Your task to perform on an android device: search for console tables on article.com Image 0: 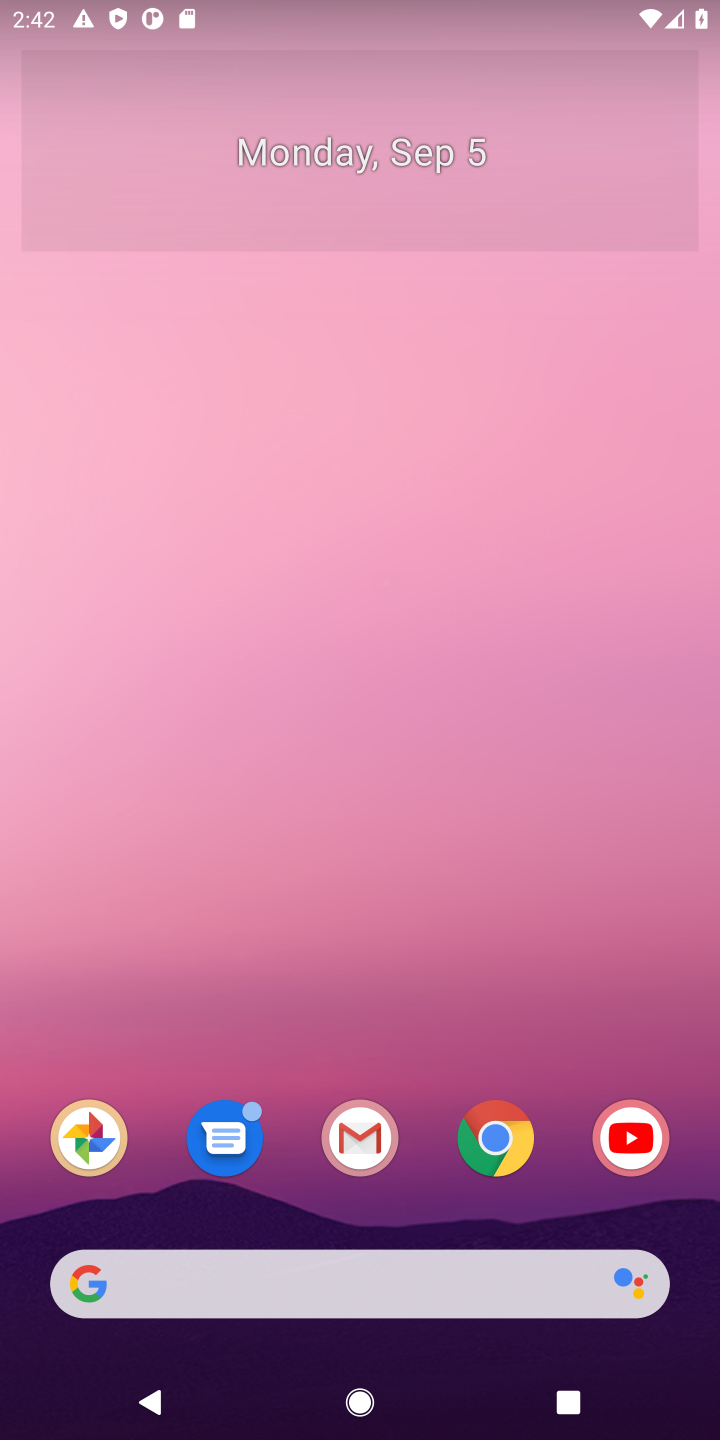
Step 0: click (499, 1142)
Your task to perform on an android device: search for console tables on article.com Image 1: 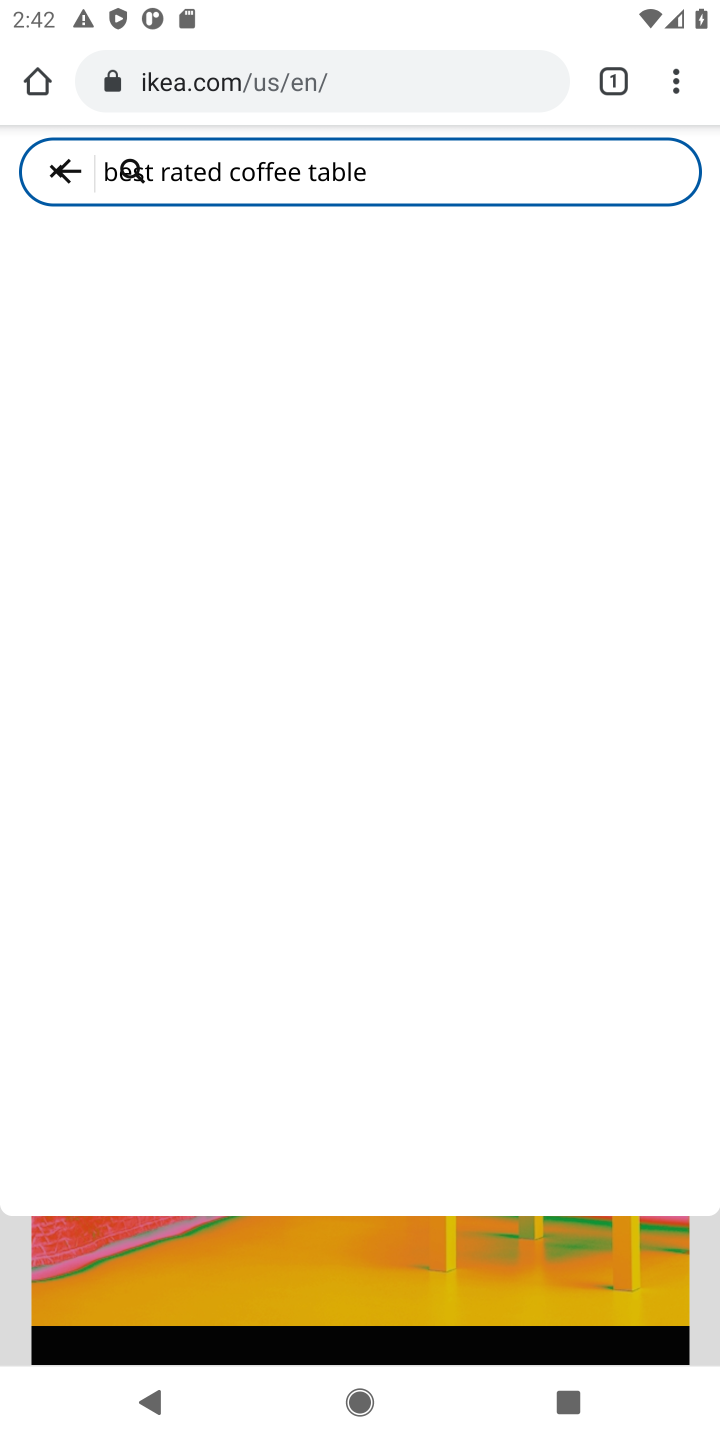
Step 1: click (426, 89)
Your task to perform on an android device: search for console tables on article.com Image 2: 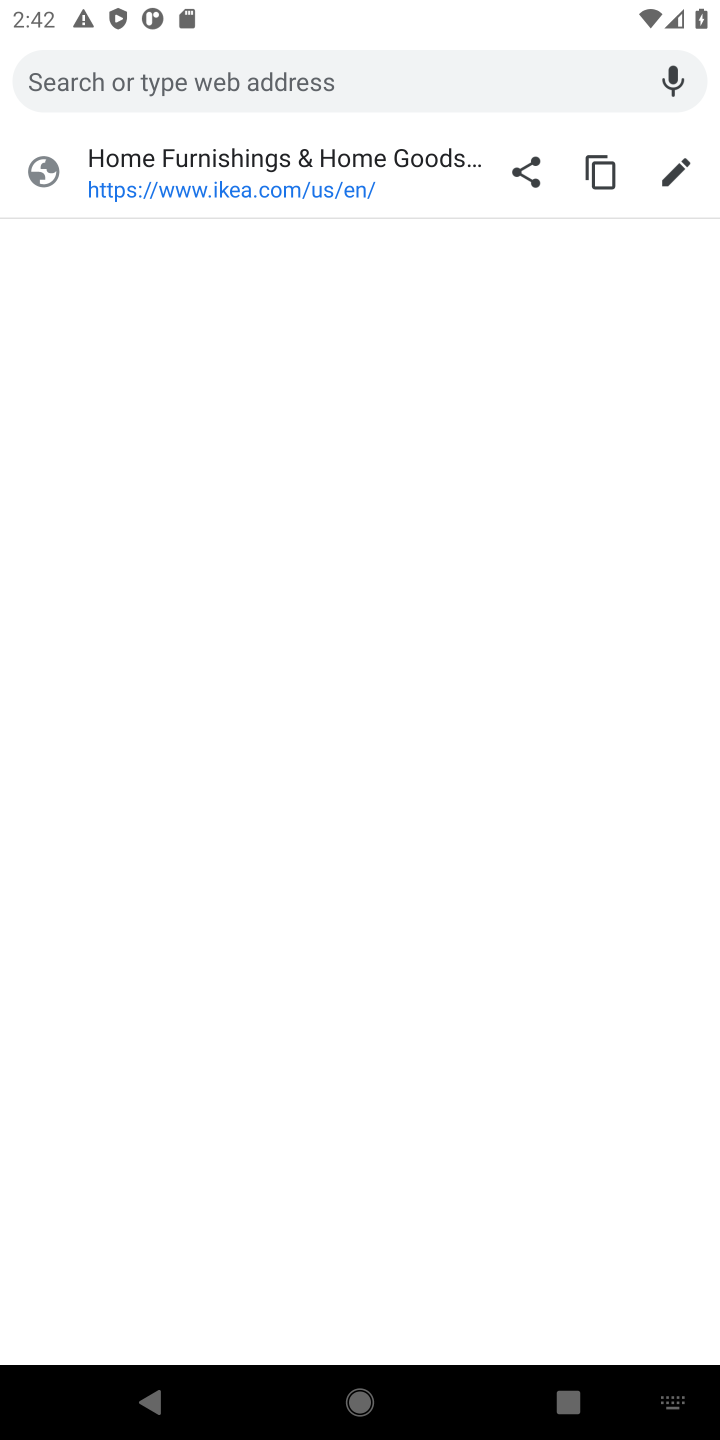
Step 2: type "article.com"
Your task to perform on an android device: search for console tables on article.com Image 3: 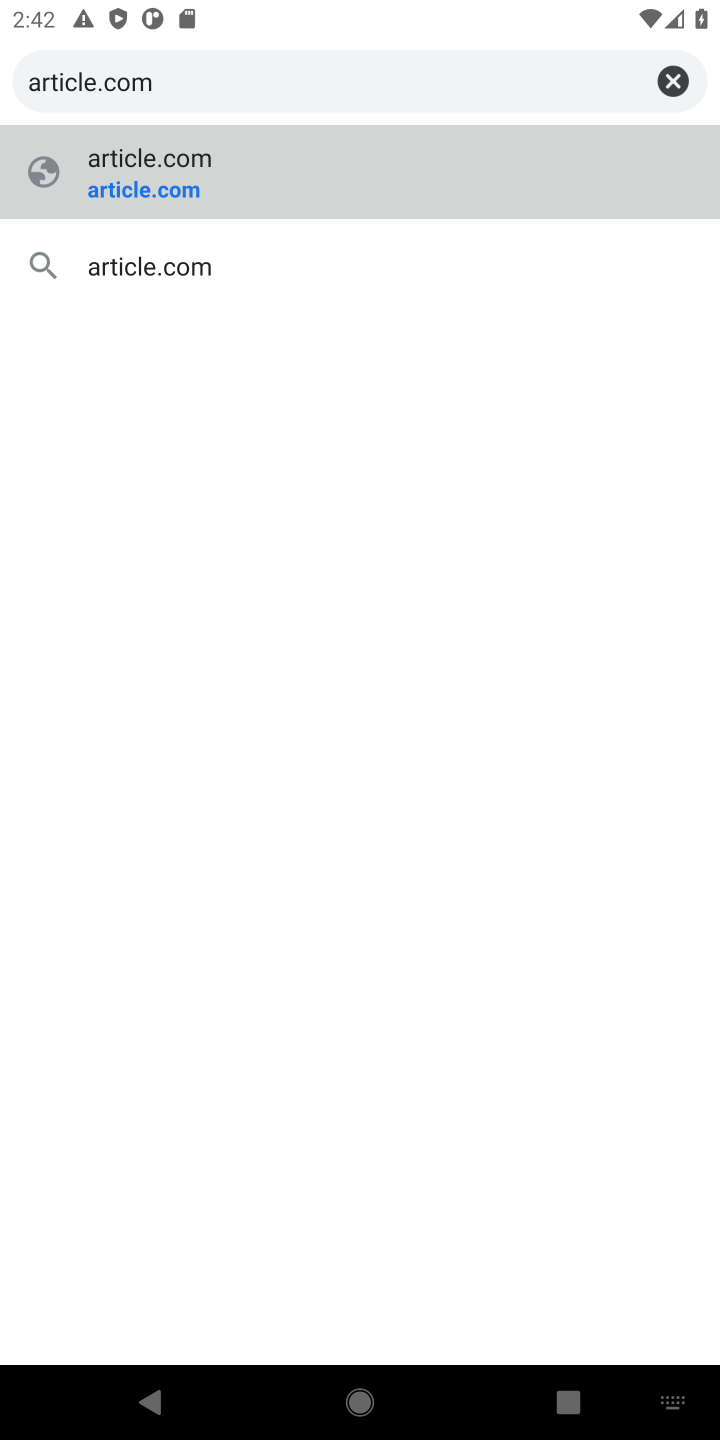
Step 3: click (222, 273)
Your task to perform on an android device: search for console tables on article.com Image 4: 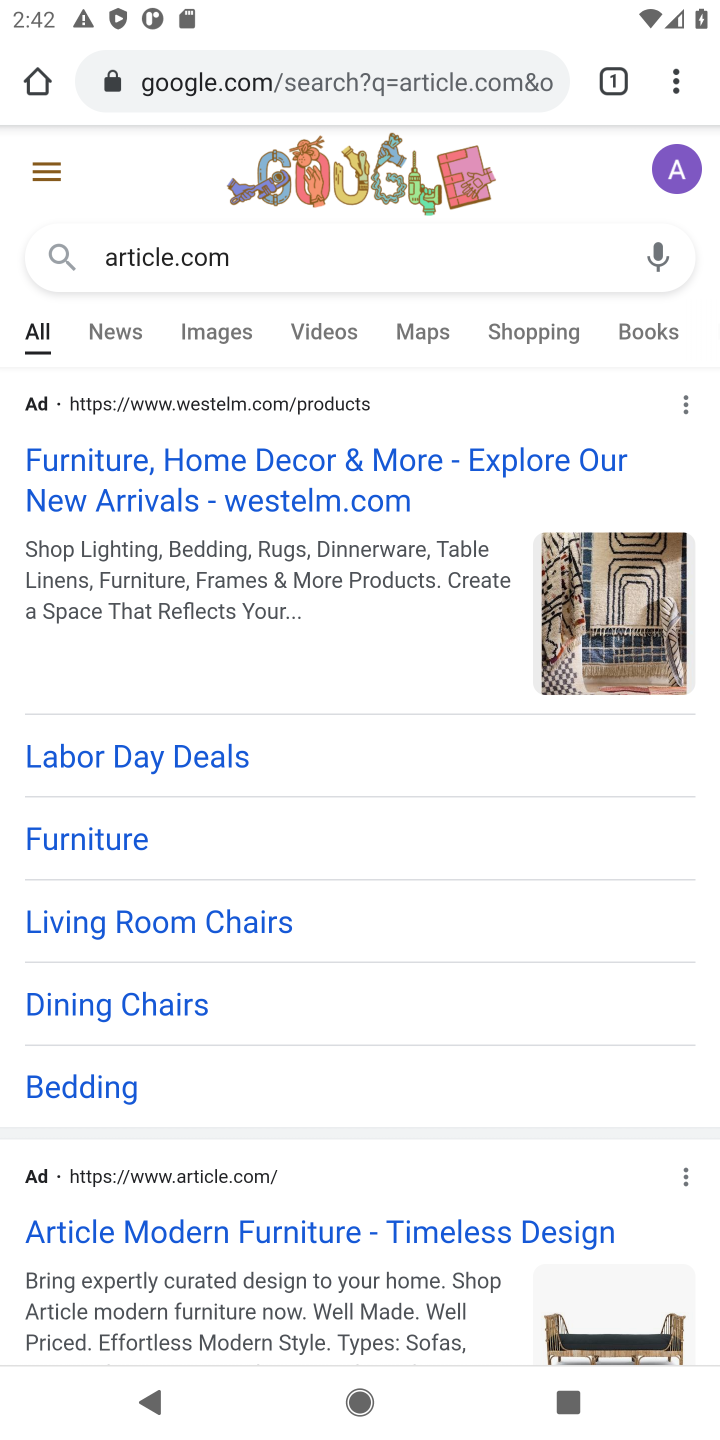
Step 4: click (451, 1252)
Your task to perform on an android device: search for console tables on article.com Image 5: 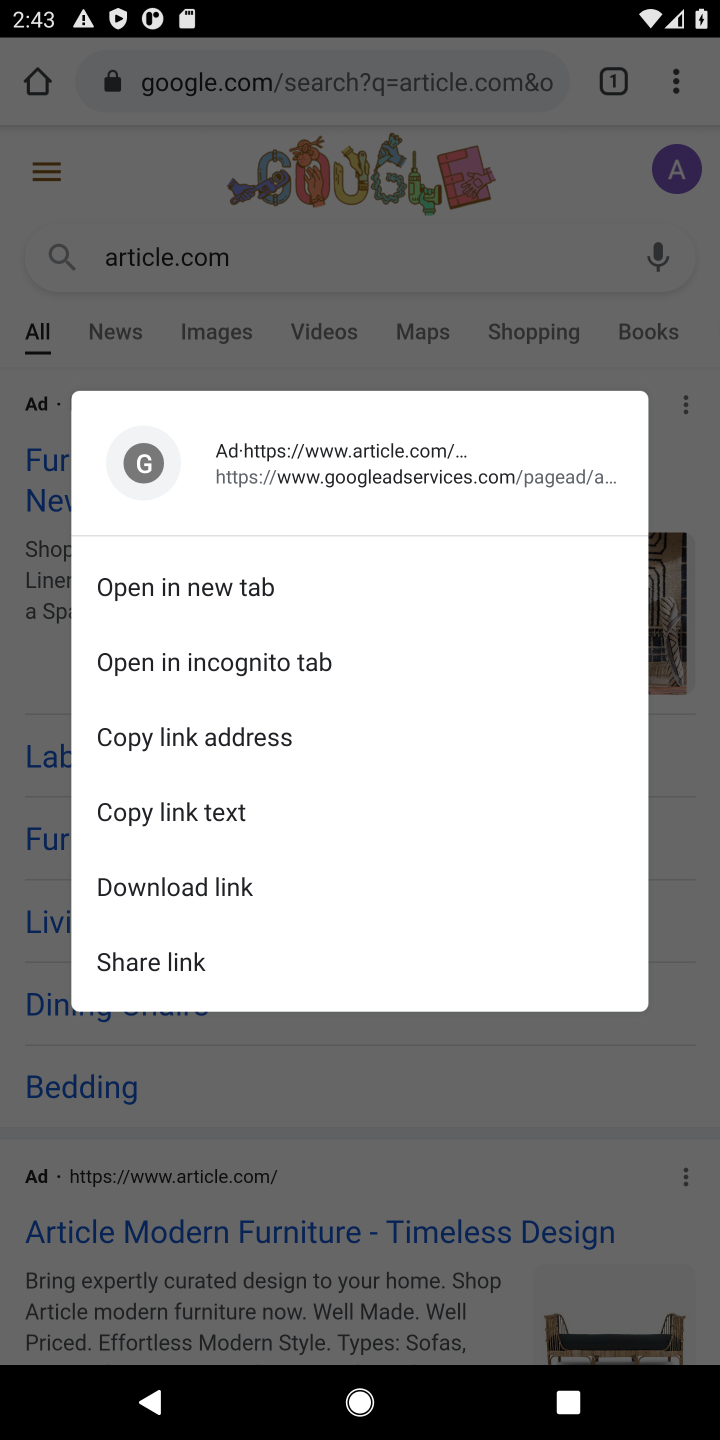
Step 5: click (700, 854)
Your task to perform on an android device: search for console tables on article.com Image 6: 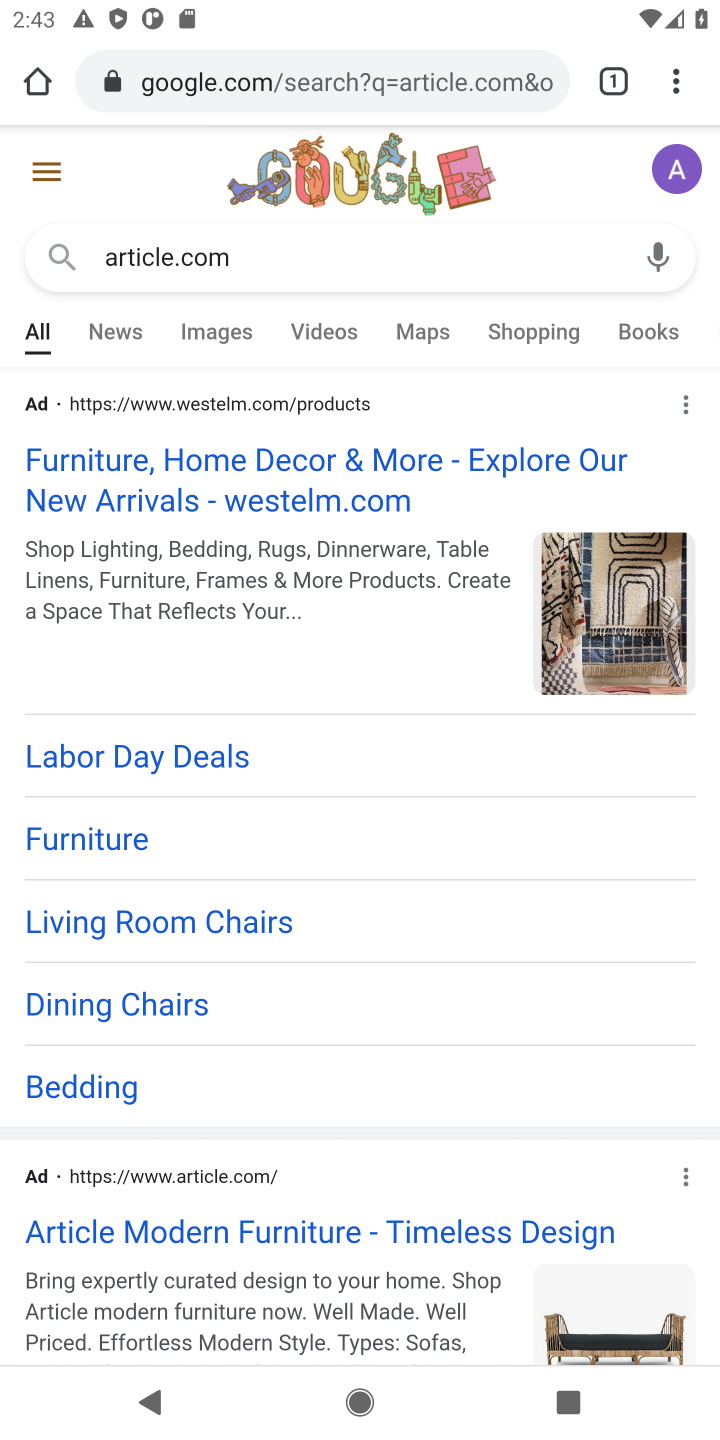
Step 6: drag from (374, 1187) to (473, 391)
Your task to perform on an android device: search for console tables on article.com Image 7: 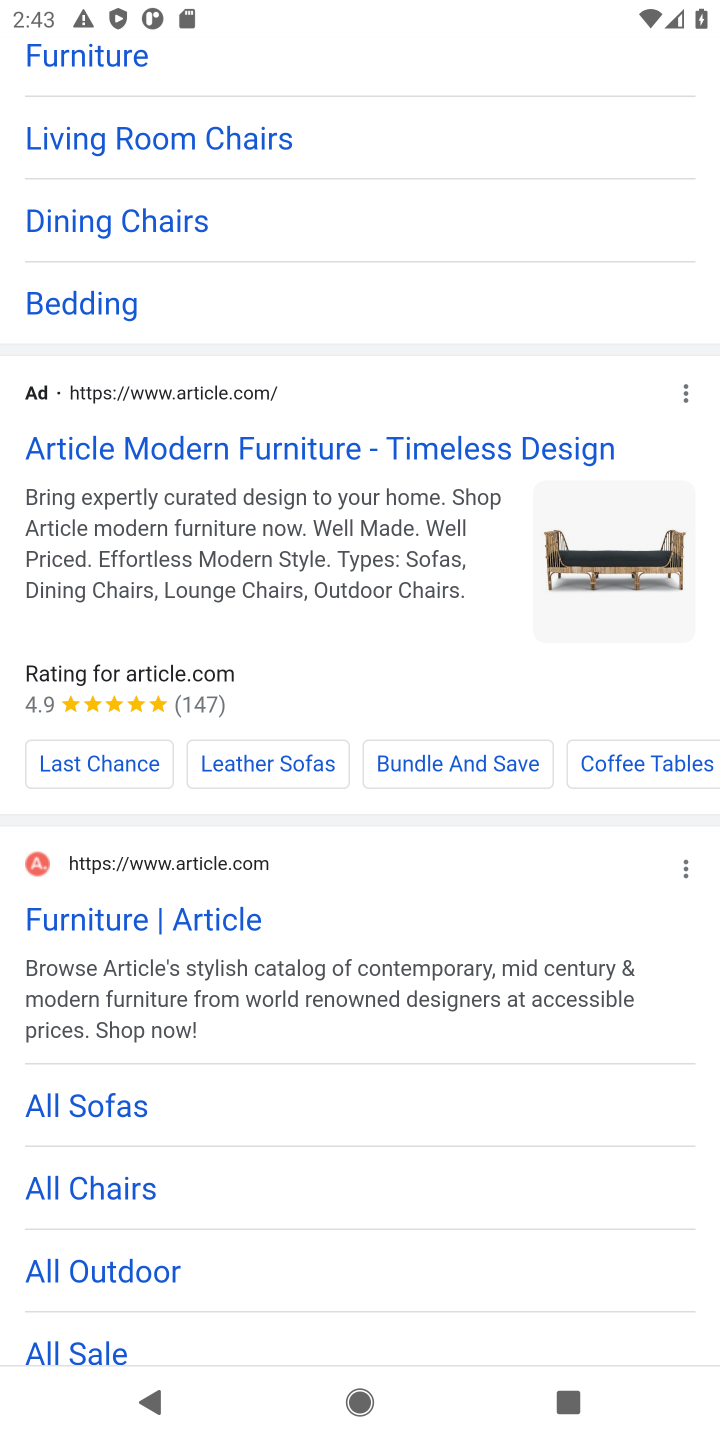
Step 7: drag from (334, 1319) to (355, 1107)
Your task to perform on an android device: search for console tables on article.com Image 8: 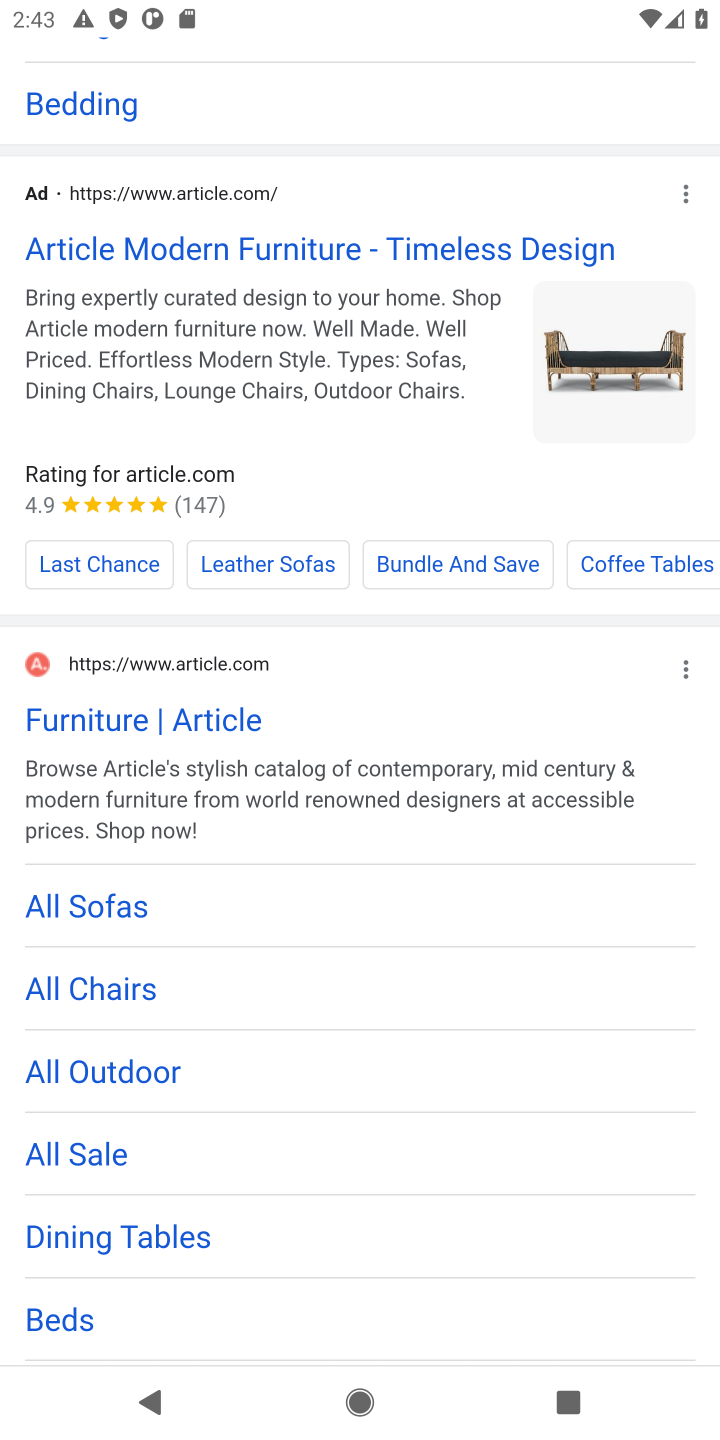
Step 8: click (280, 738)
Your task to perform on an android device: search for console tables on article.com Image 9: 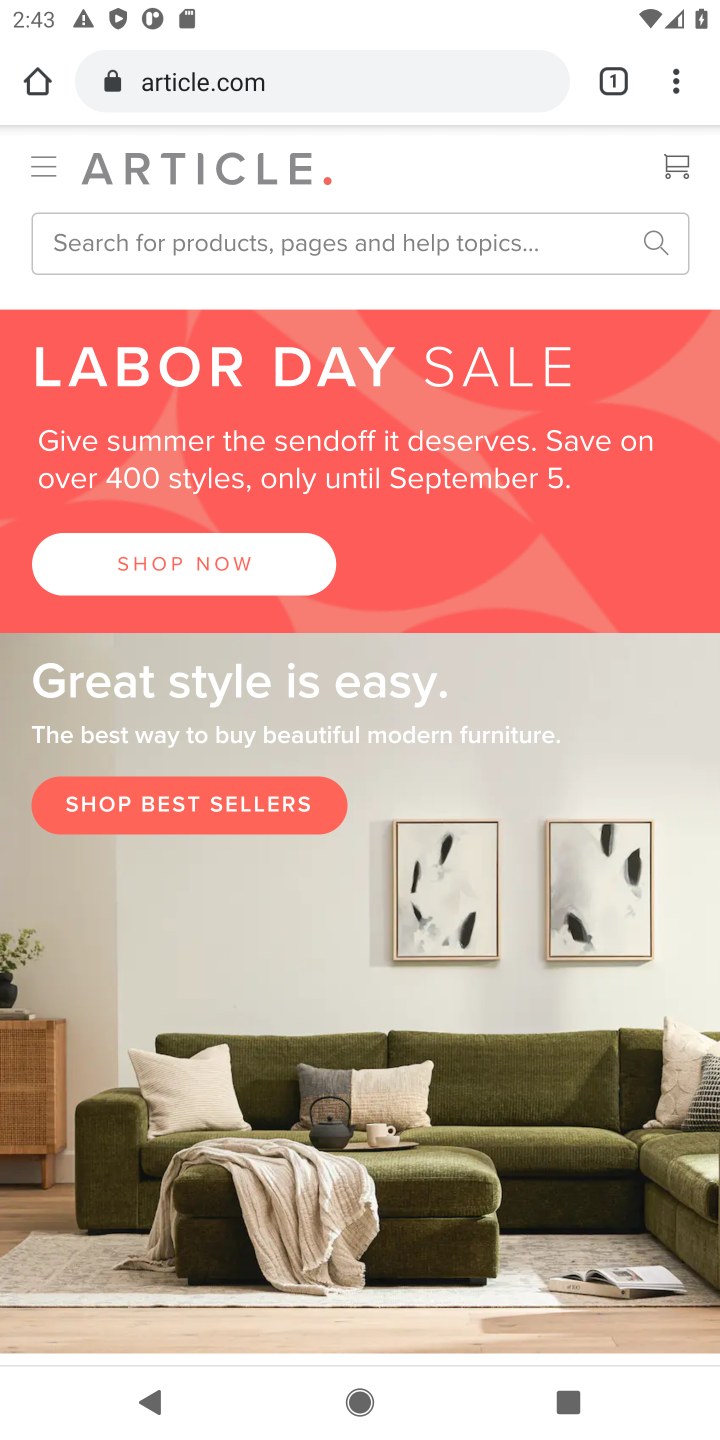
Step 9: click (374, 253)
Your task to perform on an android device: search for console tables on article.com Image 10: 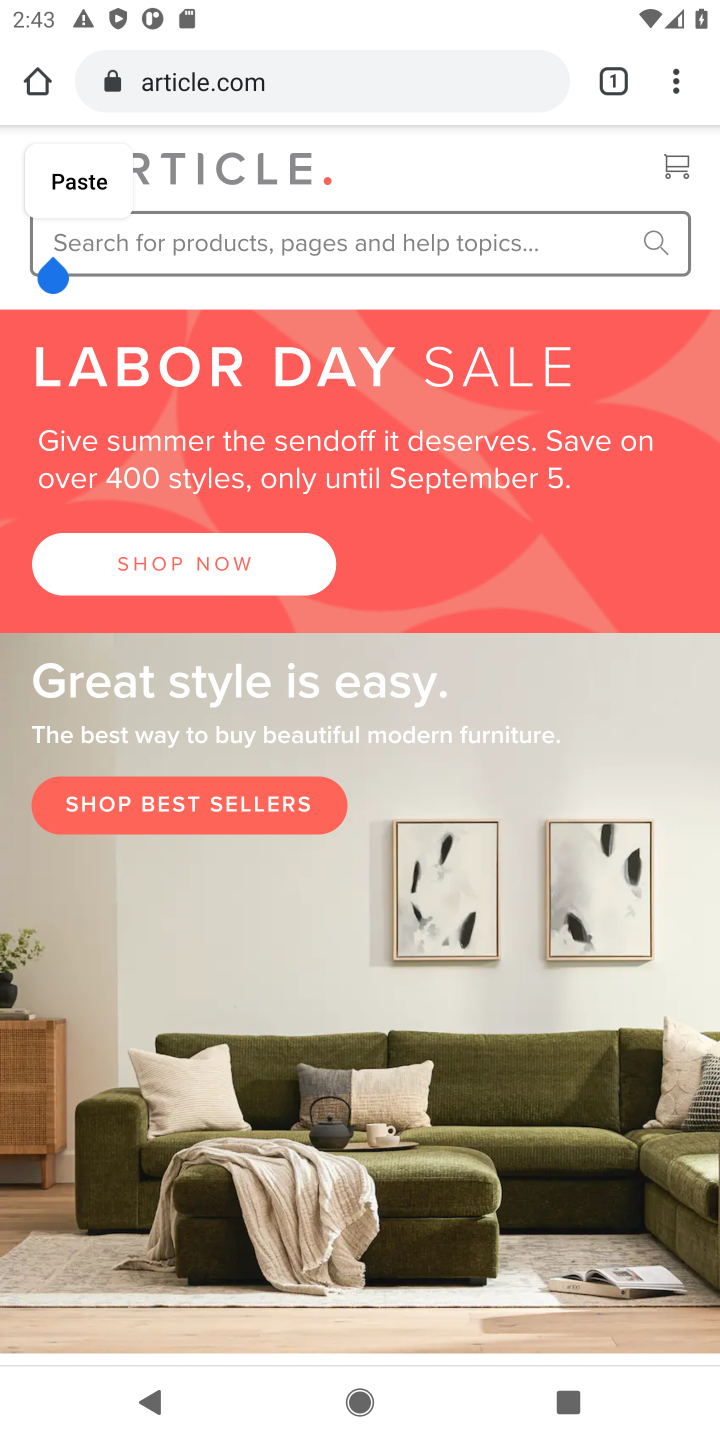
Step 10: type "console table"
Your task to perform on an android device: search for console tables on article.com Image 11: 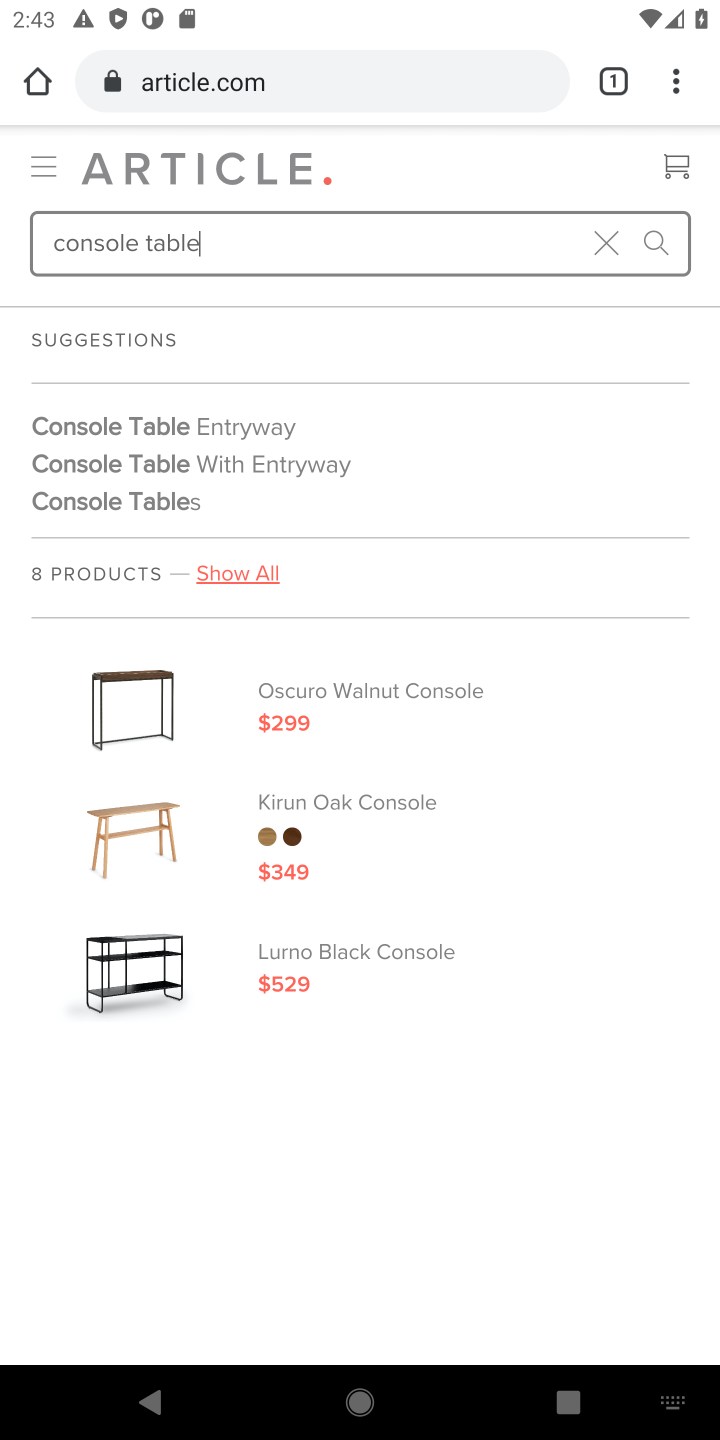
Step 11: click (658, 245)
Your task to perform on an android device: search for console tables on article.com Image 12: 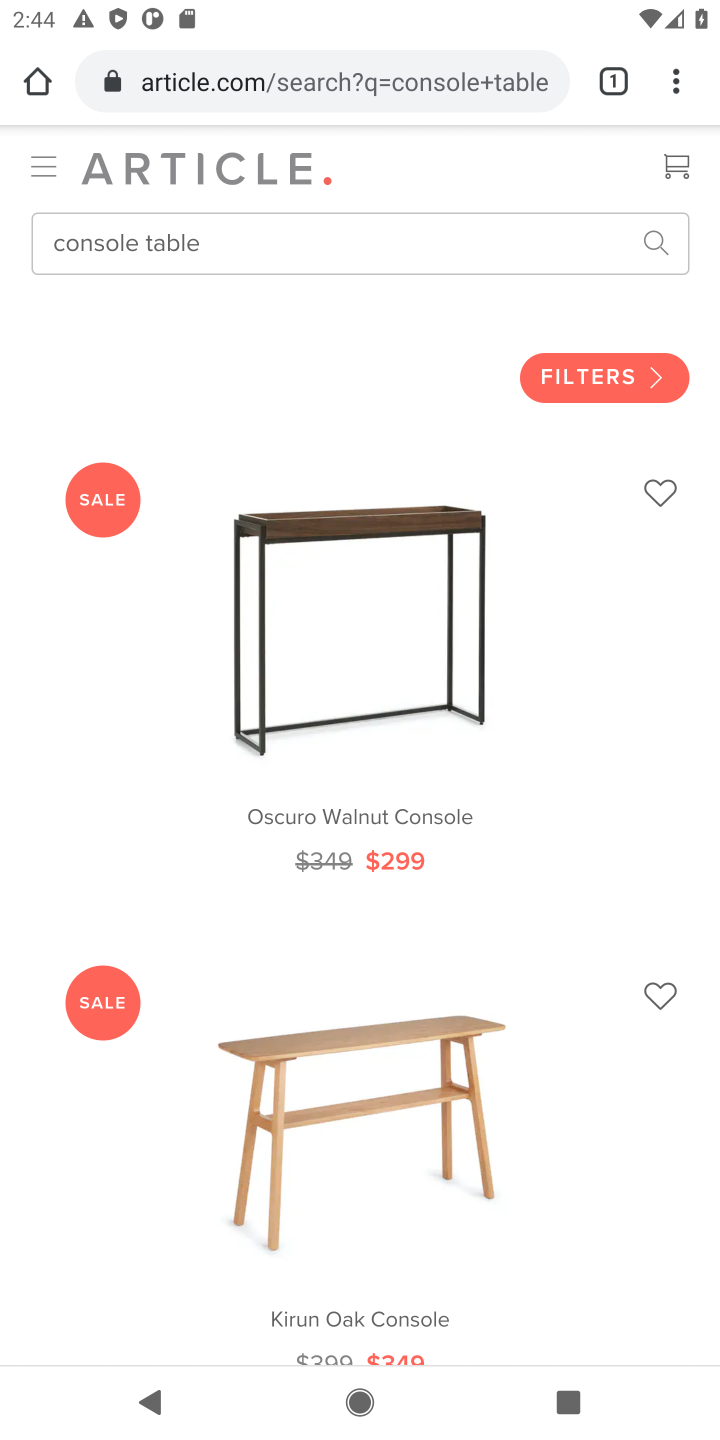
Step 12: drag from (437, 942) to (535, 459)
Your task to perform on an android device: search for console tables on article.com Image 13: 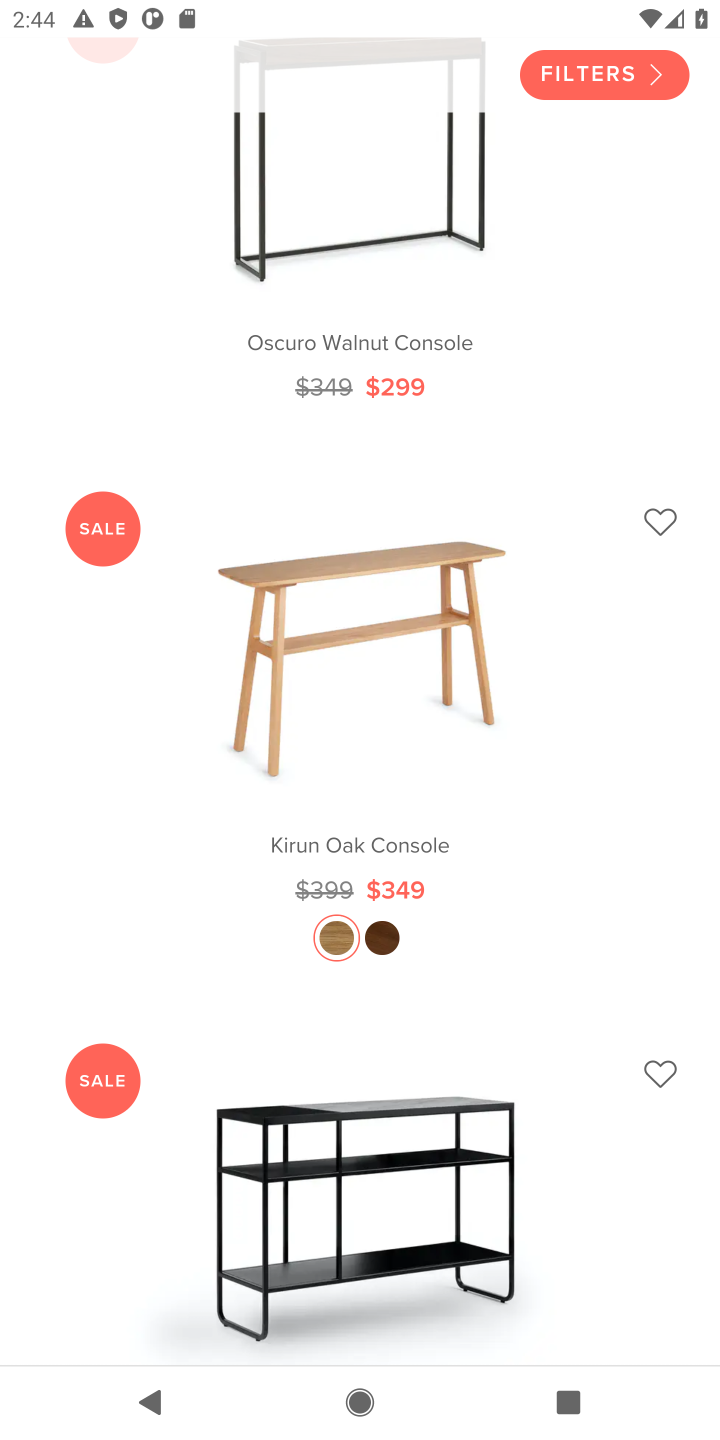
Step 13: drag from (385, 1045) to (657, 380)
Your task to perform on an android device: search for console tables on article.com Image 14: 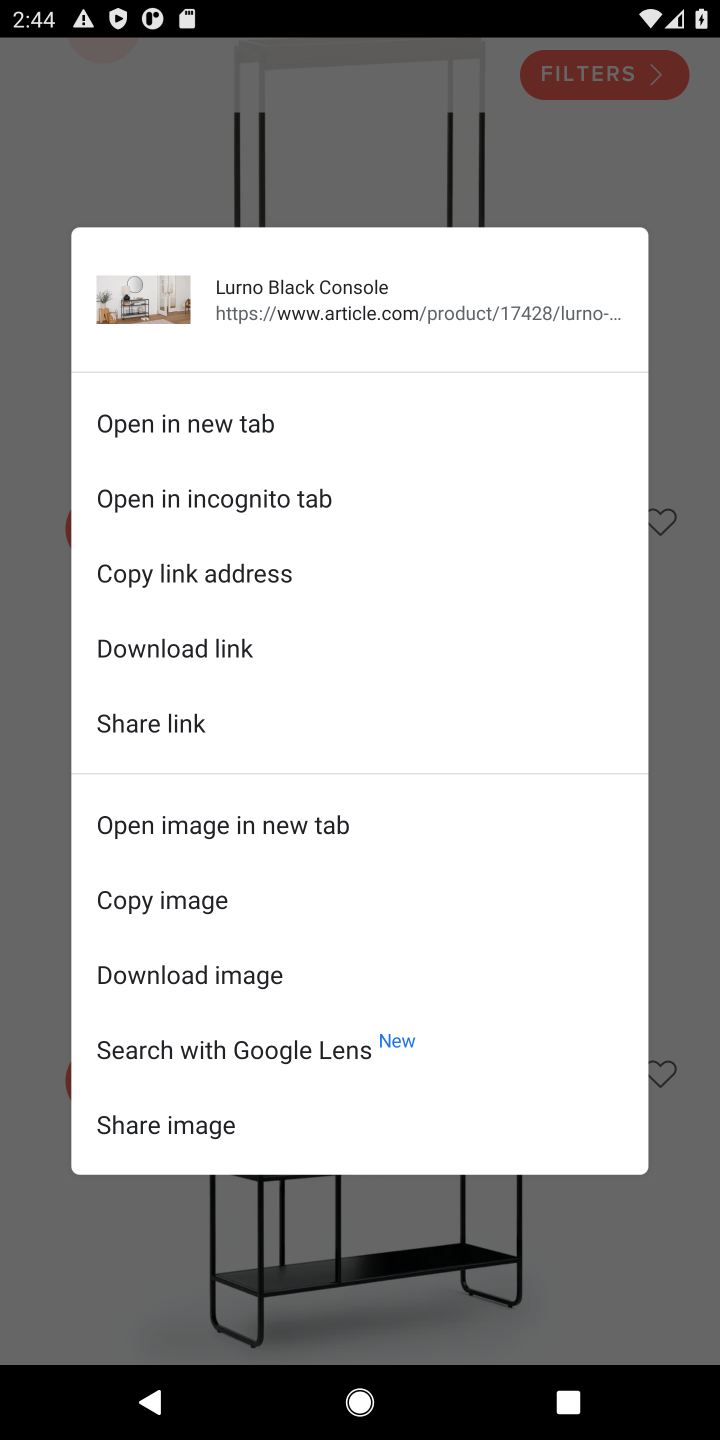
Step 14: click (688, 319)
Your task to perform on an android device: search for console tables on article.com Image 15: 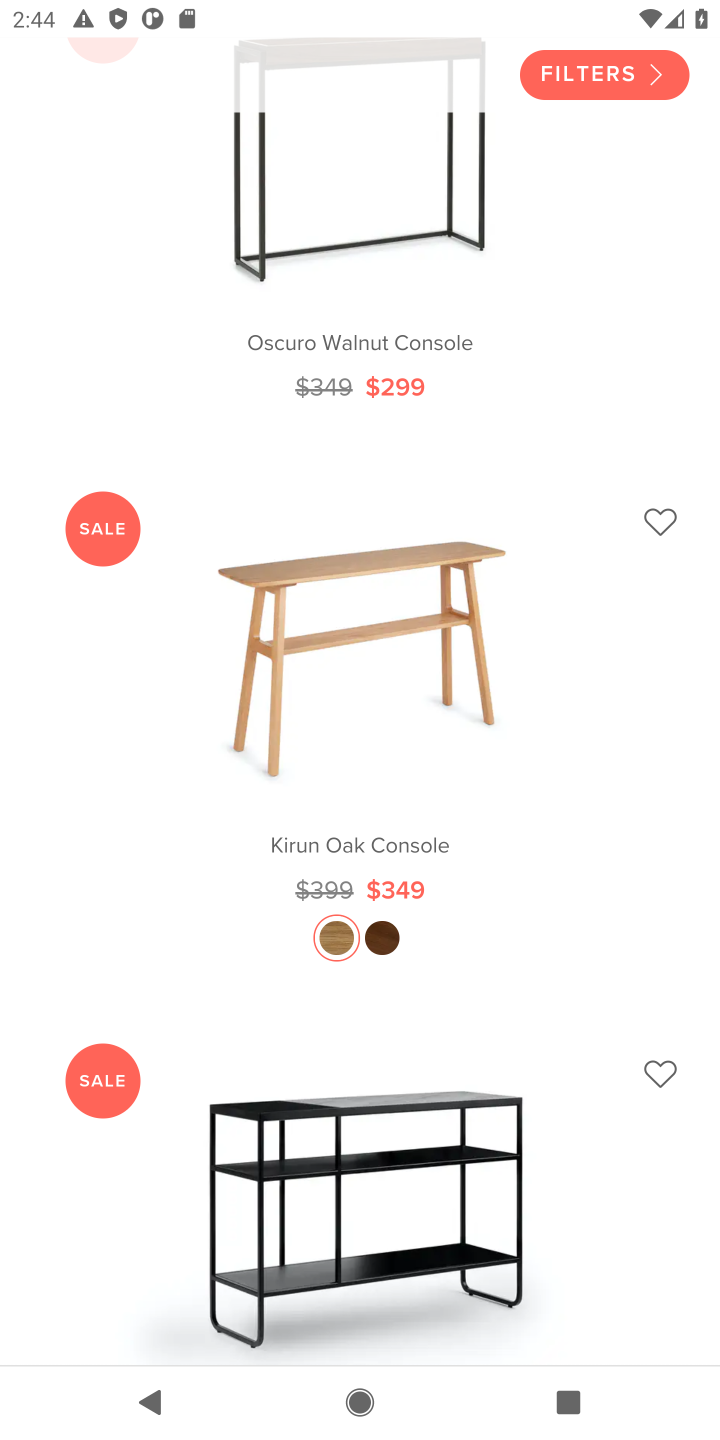
Step 15: task complete